Your task to perform on an android device: Open privacy settings Image 0: 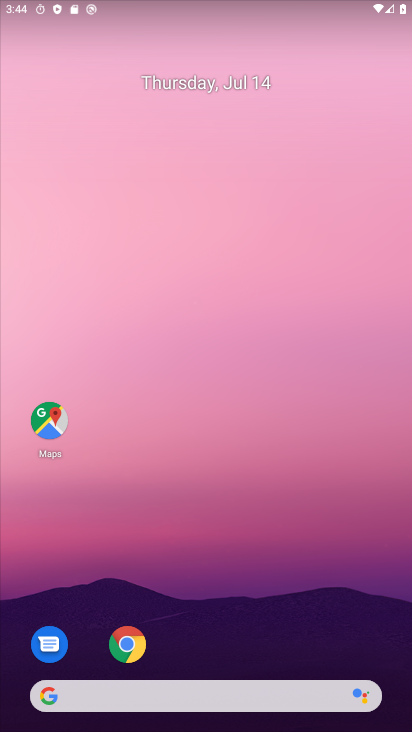
Step 0: drag from (218, 643) to (307, 54)
Your task to perform on an android device: Open privacy settings Image 1: 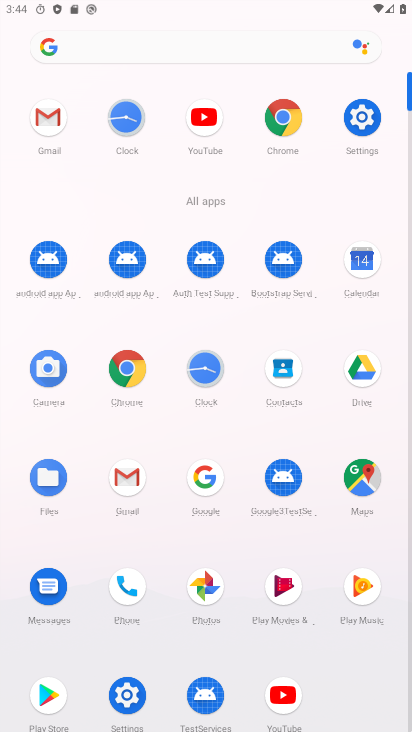
Step 1: click (355, 126)
Your task to perform on an android device: Open privacy settings Image 2: 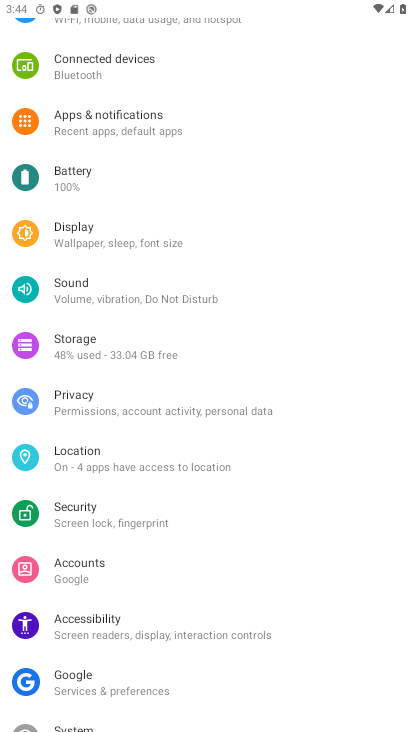
Step 2: click (89, 356)
Your task to perform on an android device: Open privacy settings Image 3: 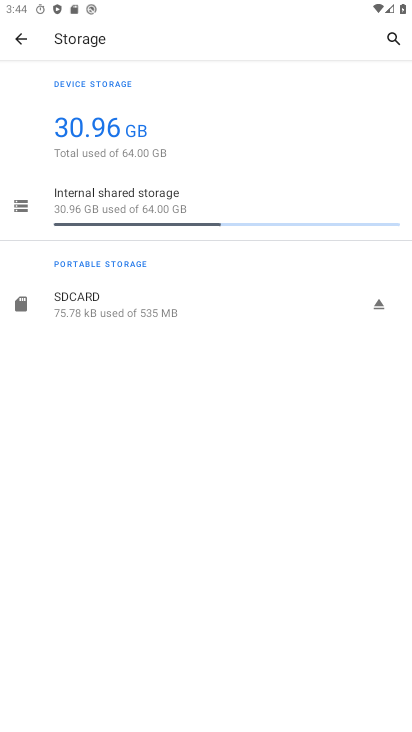
Step 3: task complete